Your task to perform on an android device: What's on my calendar tomorrow? Image 0: 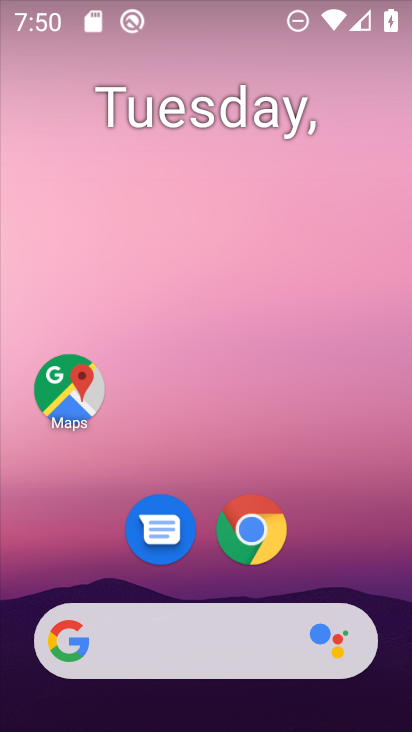
Step 0: drag from (199, 641) to (336, 203)
Your task to perform on an android device: What's on my calendar tomorrow? Image 1: 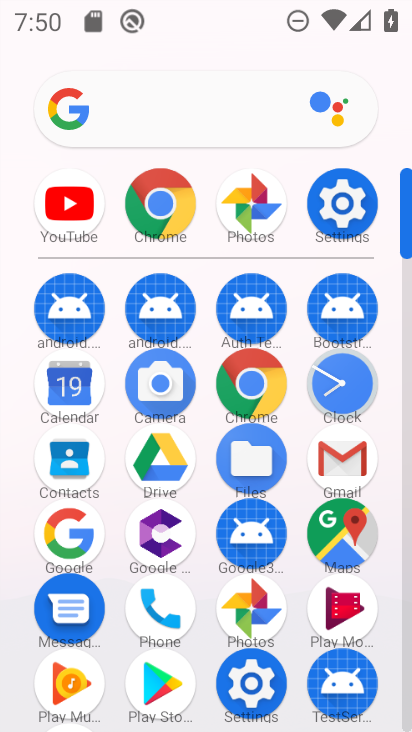
Step 1: click (57, 386)
Your task to perform on an android device: What's on my calendar tomorrow? Image 2: 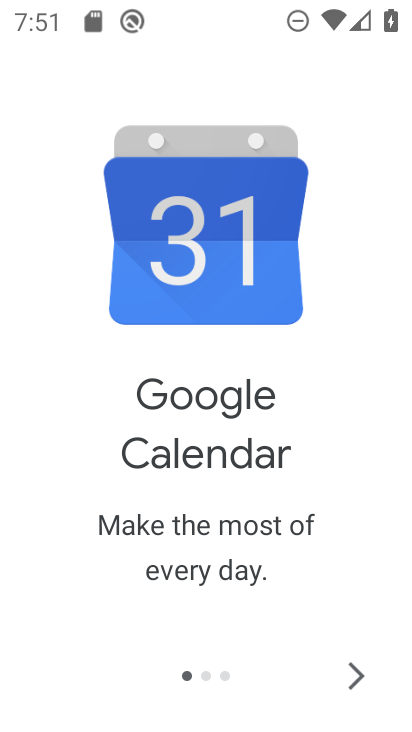
Step 2: click (354, 679)
Your task to perform on an android device: What's on my calendar tomorrow? Image 3: 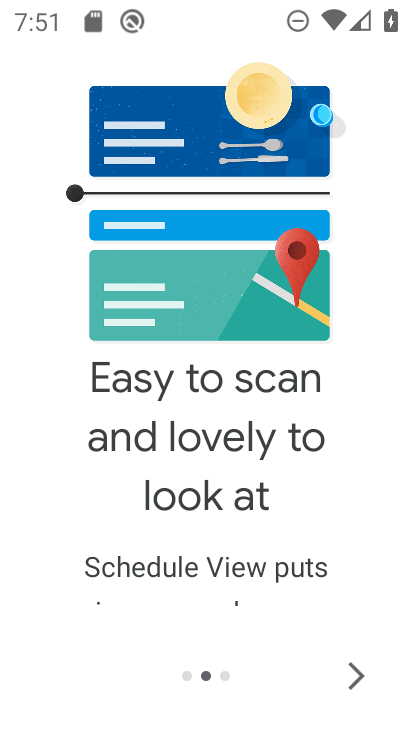
Step 3: click (354, 679)
Your task to perform on an android device: What's on my calendar tomorrow? Image 4: 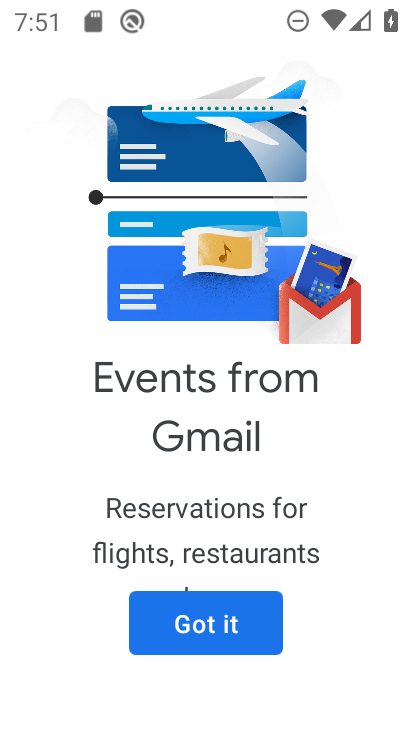
Step 4: click (261, 635)
Your task to perform on an android device: What's on my calendar tomorrow? Image 5: 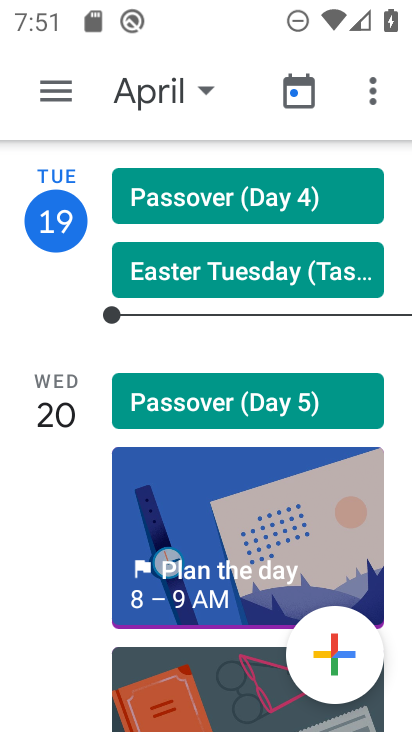
Step 5: click (156, 99)
Your task to perform on an android device: What's on my calendar tomorrow? Image 6: 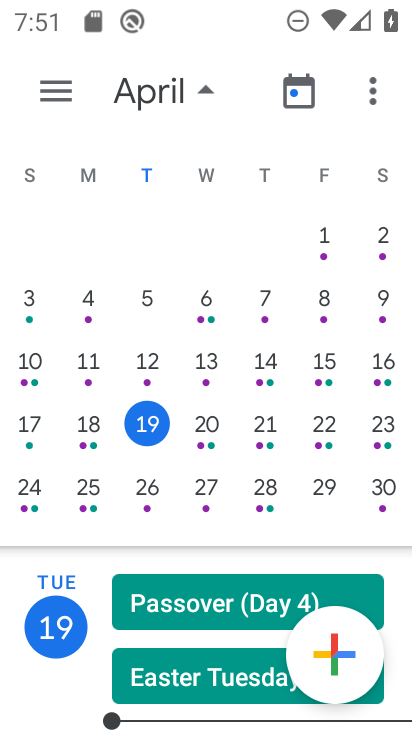
Step 6: click (204, 428)
Your task to perform on an android device: What's on my calendar tomorrow? Image 7: 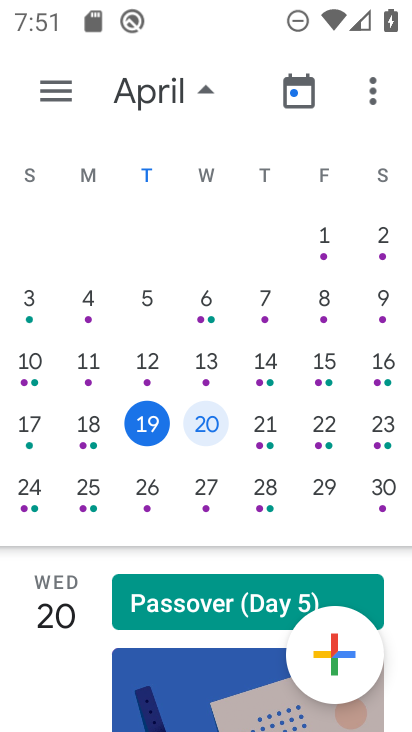
Step 7: task complete